Your task to perform on an android device: Open Google Chrome and open the bookmarks view Image 0: 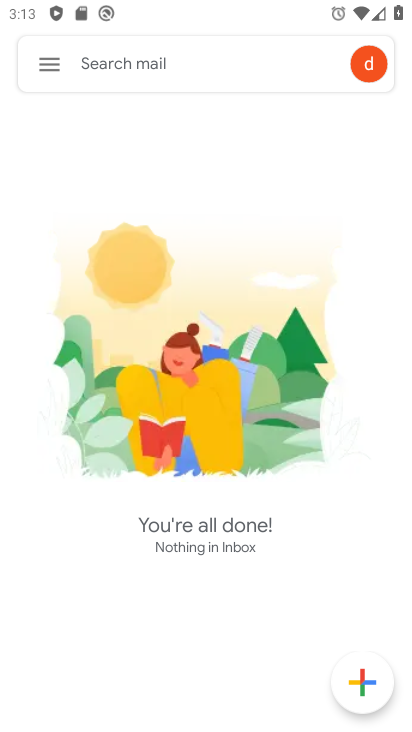
Step 0: press home button
Your task to perform on an android device: Open Google Chrome and open the bookmarks view Image 1: 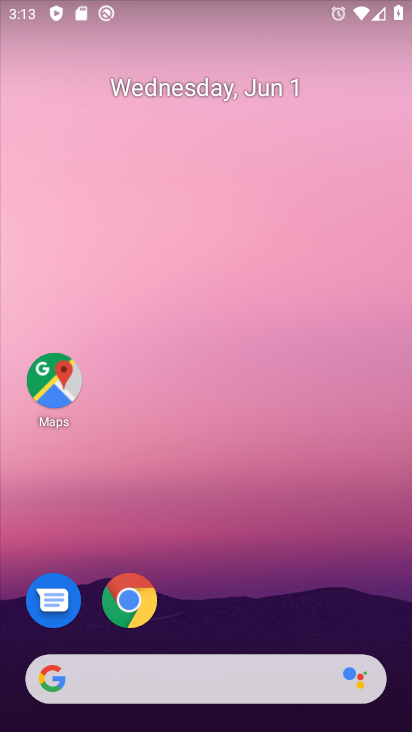
Step 1: drag from (207, 616) to (290, 263)
Your task to perform on an android device: Open Google Chrome and open the bookmarks view Image 2: 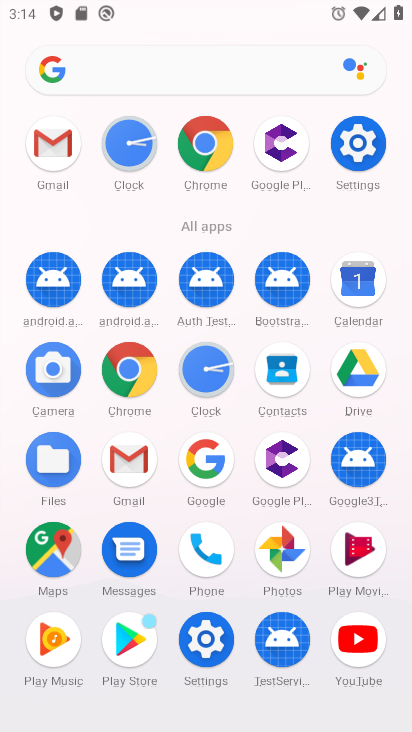
Step 2: click (187, 134)
Your task to perform on an android device: Open Google Chrome and open the bookmarks view Image 3: 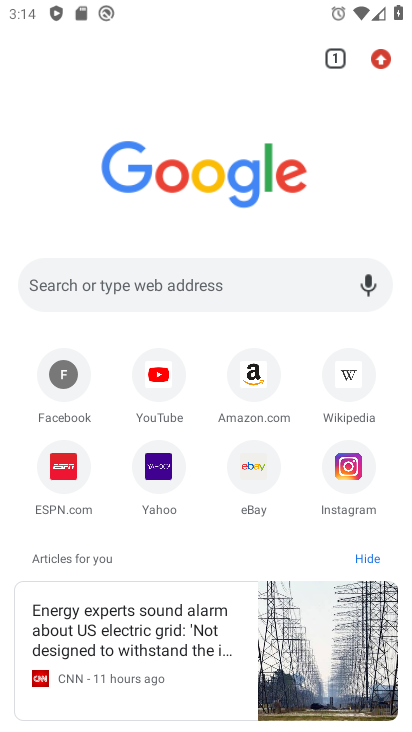
Step 3: click (374, 54)
Your task to perform on an android device: Open Google Chrome and open the bookmarks view Image 4: 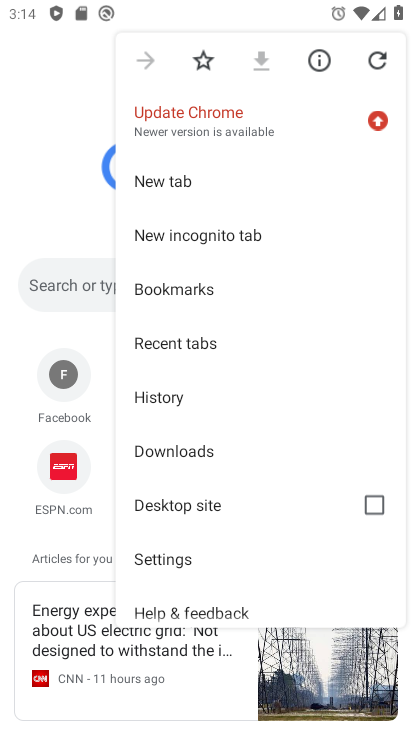
Step 4: click (207, 290)
Your task to perform on an android device: Open Google Chrome and open the bookmarks view Image 5: 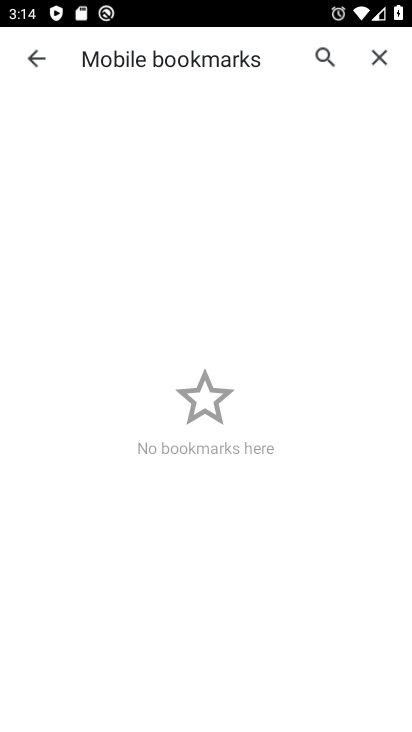
Step 5: task complete